Your task to perform on an android device: Open Google Chrome and open the bookmarks view Image 0: 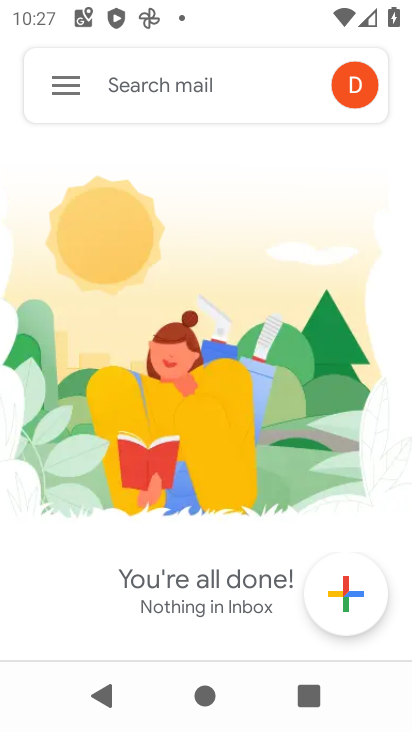
Step 0: press home button
Your task to perform on an android device: Open Google Chrome and open the bookmarks view Image 1: 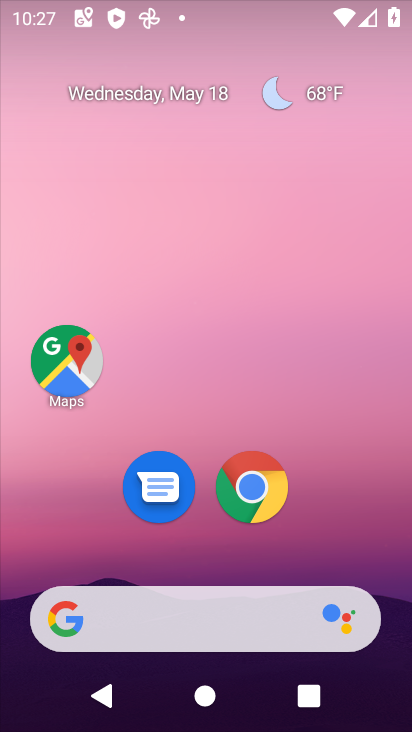
Step 1: drag from (337, 491) to (340, 210)
Your task to perform on an android device: Open Google Chrome and open the bookmarks view Image 2: 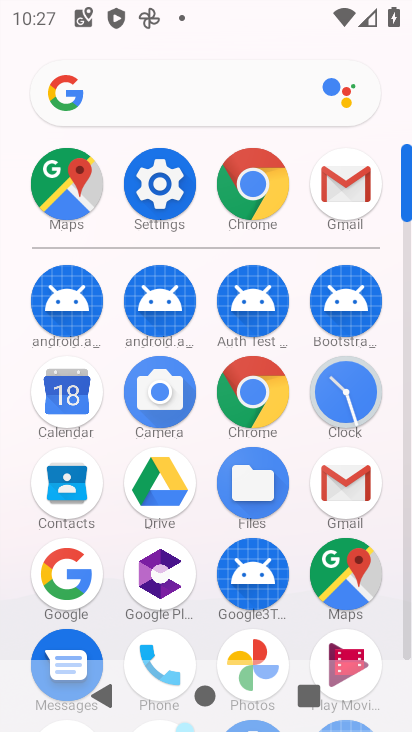
Step 2: click (268, 385)
Your task to perform on an android device: Open Google Chrome and open the bookmarks view Image 3: 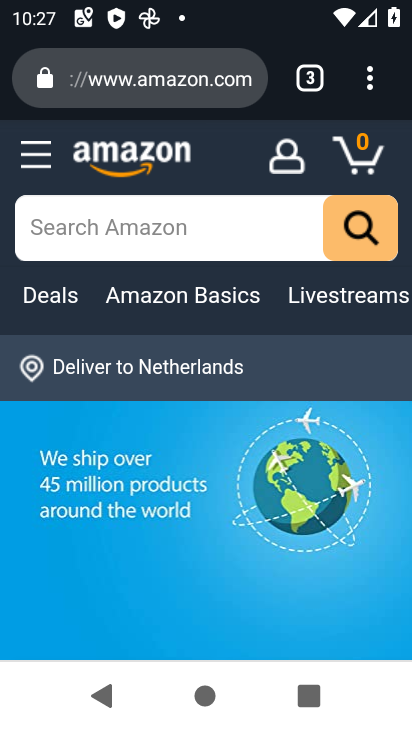
Step 3: task complete